Your task to perform on an android device: Go to Reddit.com Image 0: 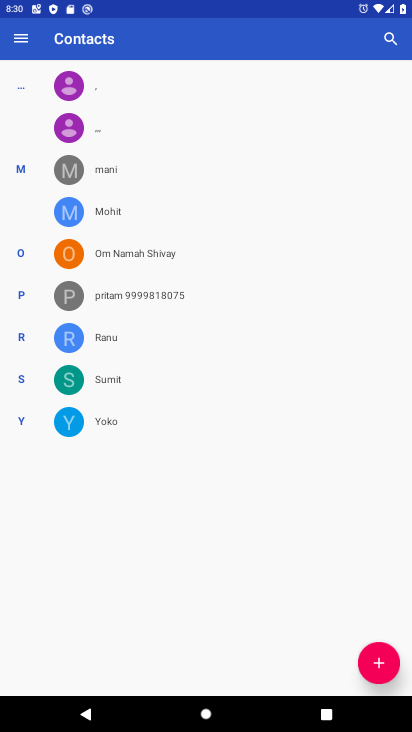
Step 0: press home button
Your task to perform on an android device: Go to Reddit.com Image 1: 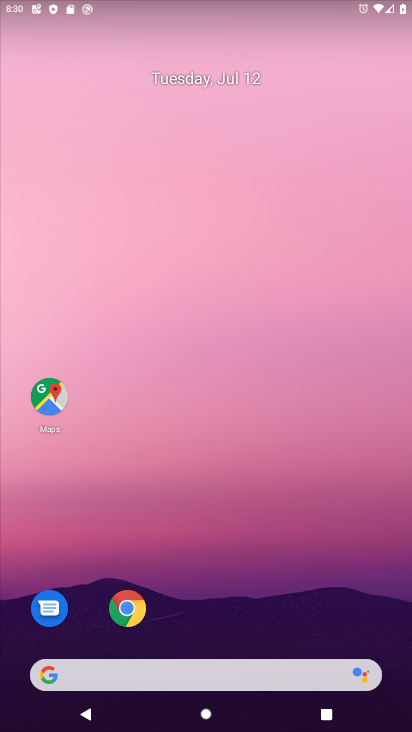
Step 1: click (120, 608)
Your task to perform on an android device: Go to Reddit.com Image 2: 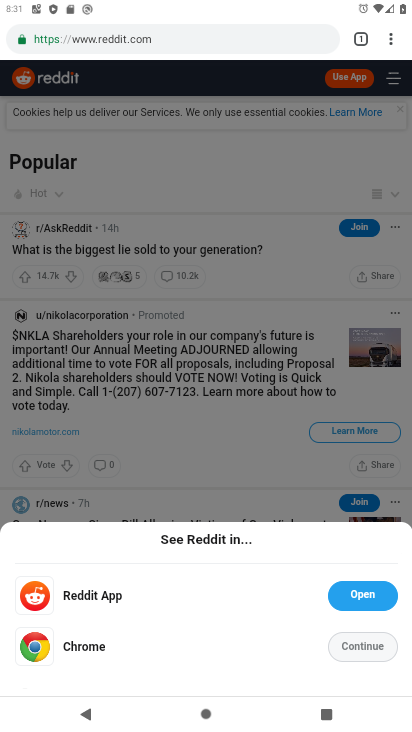
Step 2: task complete